Your task to perform on an android device: remove spam from my inbox in the gmail app Image 0: 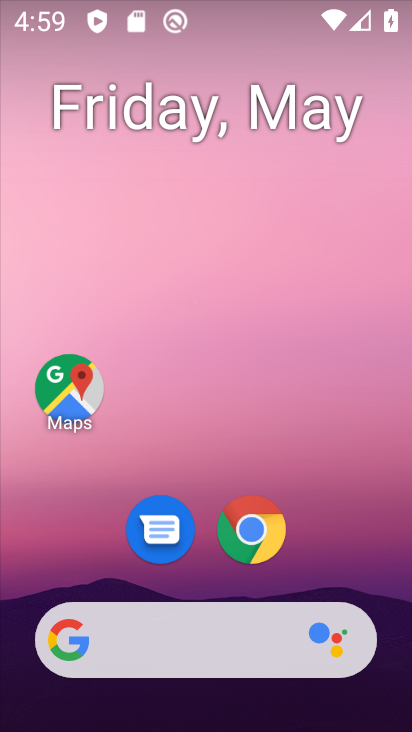
Step 0: drag from (265, 403) to (304, 43)
Your task to perform on an android device: remove spam from my inbox in the gmail app Image 1: 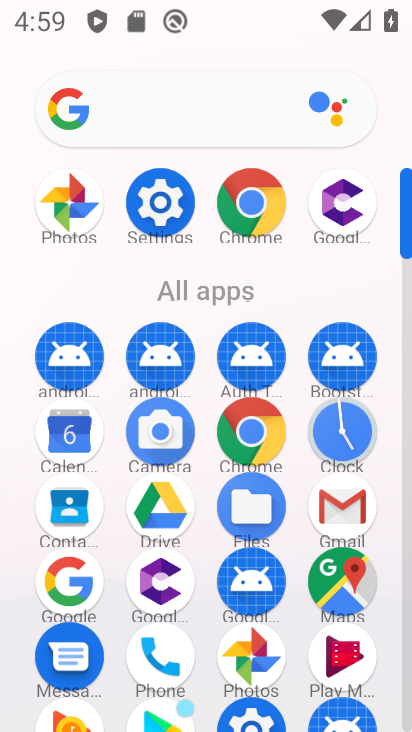
Step 1: click (333, 511)
Your task to perform on an android device: remove spam from my inbox in the gmail app Image 2: 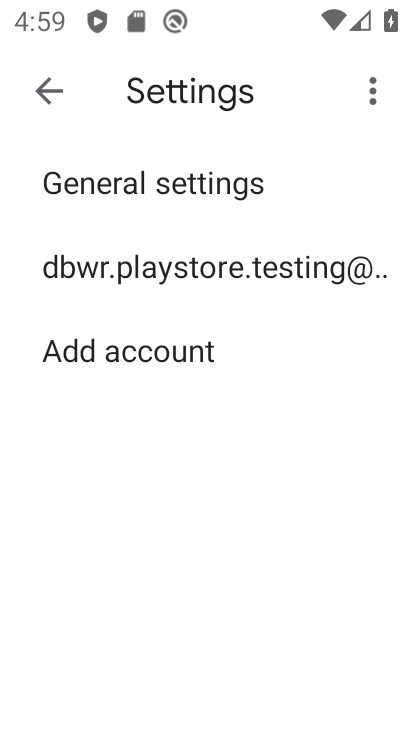
Step 2: click (64, 94)
Your task to perform on an android device: remove spam from my inbox in the gmail app Image 3: 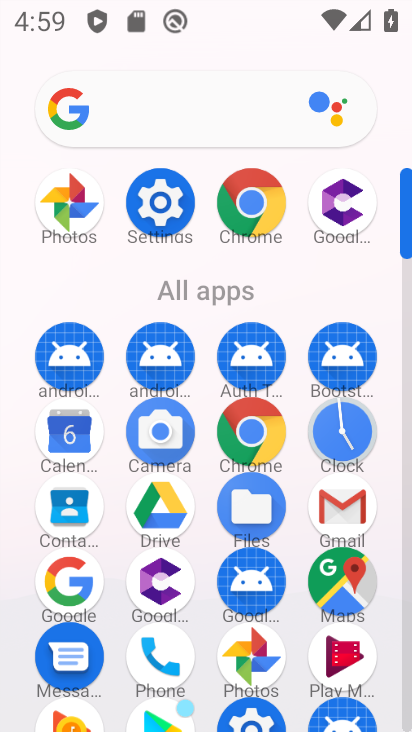
Step 3: click (64, 94)
Your task to perform on an android device: remove spam from my inbox in the gmail app Image 4: 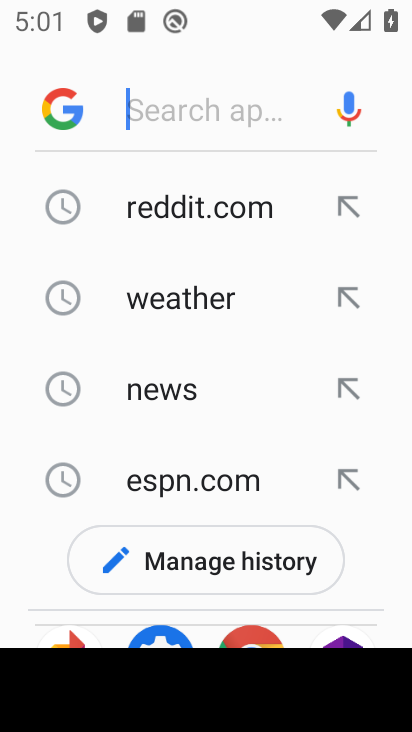
Step 4: press home button
Your task to perform on an android device: remove spam from my inbox in the gmail app Image 5: 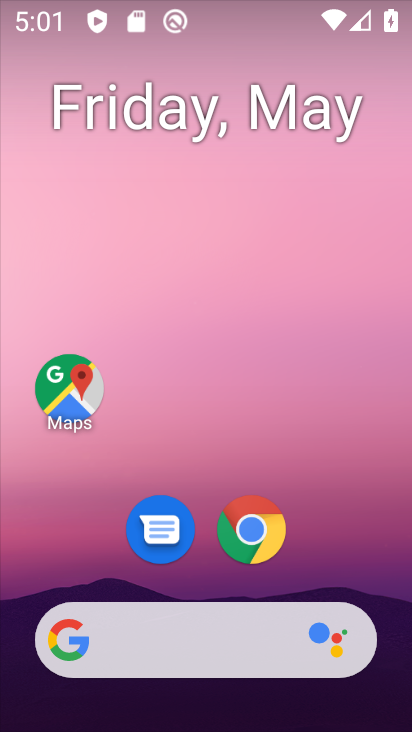
Step 5: drag from (185, 580) to (189, 170)
Your task to perform on an android device: remove spam from my inbox in the gmail app Image 6: 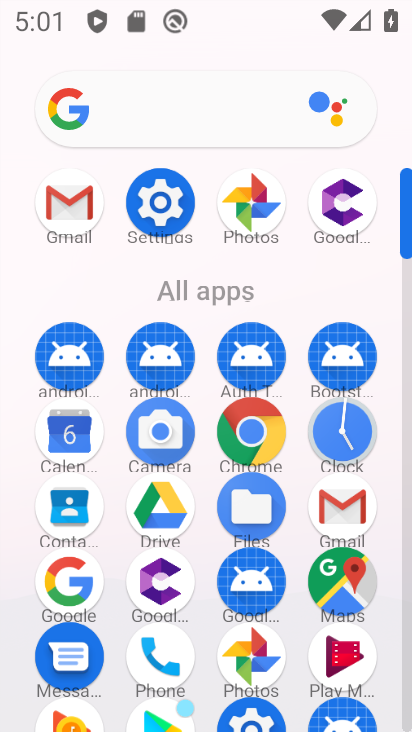
Step 6: click (122, 175)
Your task to perform on an android device: remove spam from my inbox in the gmail app Image 7: 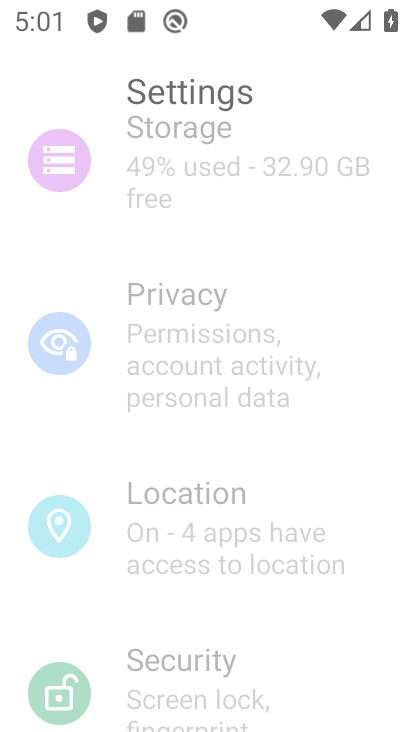
Step 7: click (86, 192)
Your task to perform on an android device: remove spam from my inbox in the gmail app Image 8: 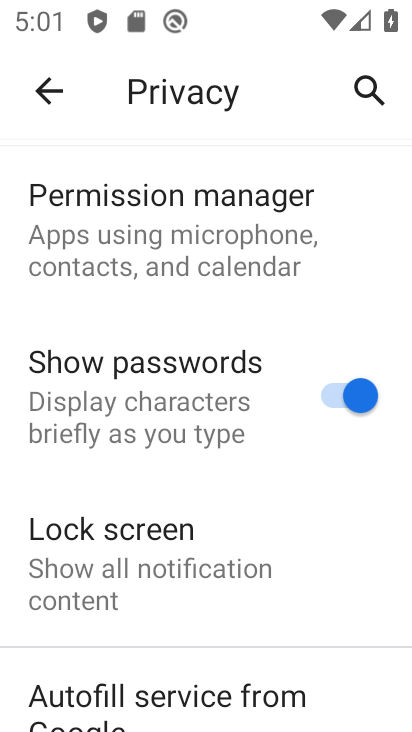
Step 8: press home button
Your task to perform on an android device: remove spam from my inbox in the gmail app Image 9: 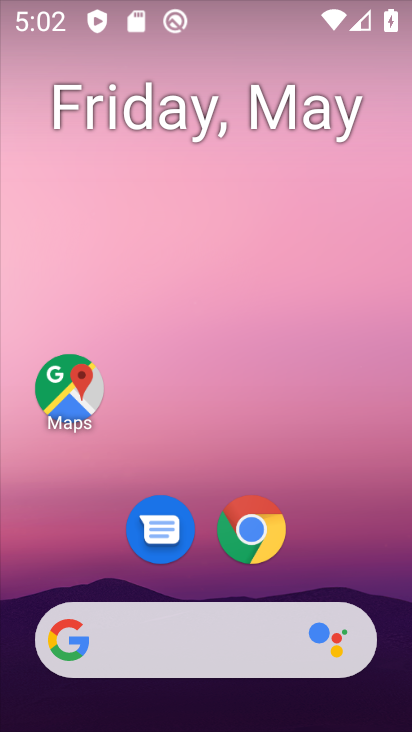
Step 9: drag from (176, 585) to (199, 55)
Your task to perform on an android device: remove spam from my inbox in the gmail app Image 10: 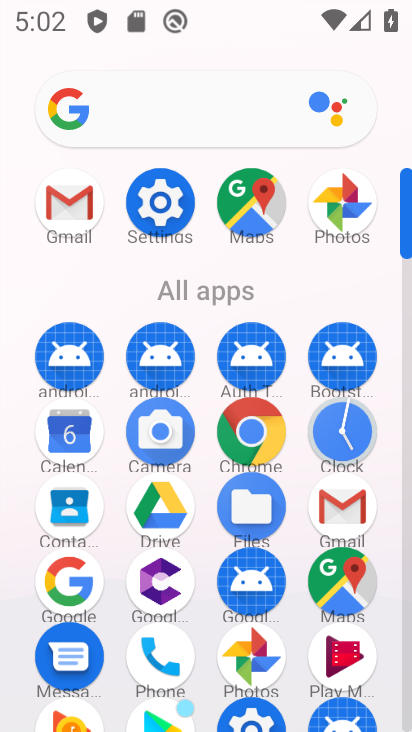
Step 10: click (199, 55)
Your task to perform on an android device: remove spam from my inbox in the gmail app Image 11: 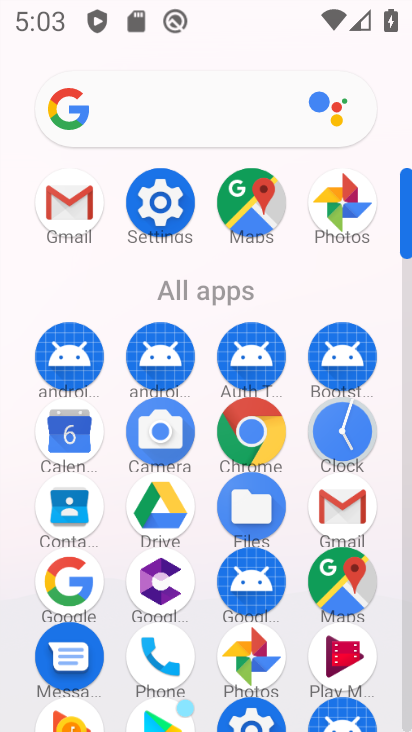
Step 11: click (61, 216)
Your task to perform on an android device: remove spam from my inbox in the gmail app Image 12: 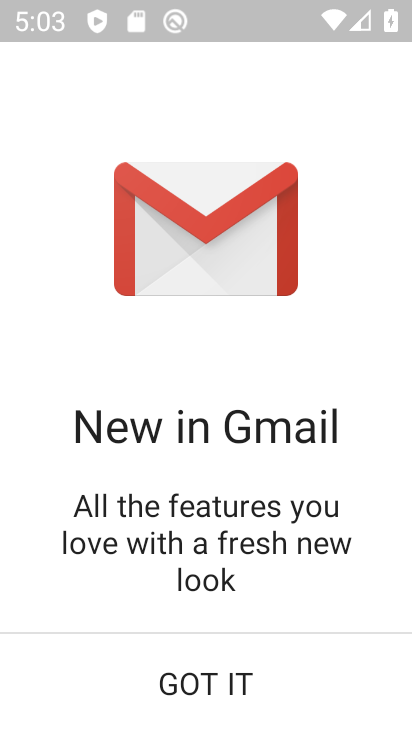
Step 12: click (264, 661)
Your task to perform on an android device: remove spam from my inbox in the gmail app Image 13: 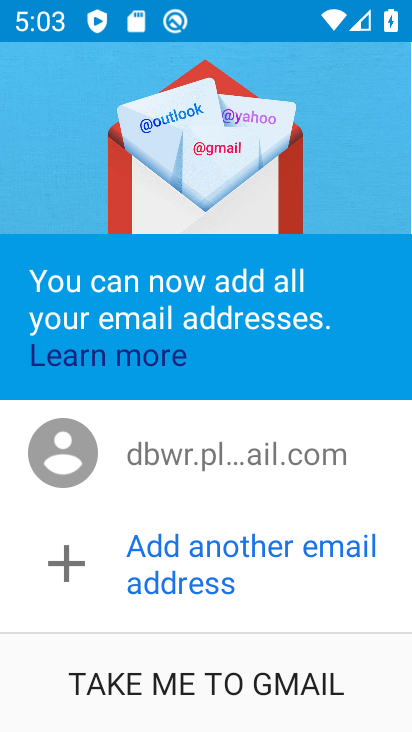
Step 13: click (264, 661)
Your task to perform on an android device: remove spam from my inbox in the gmail app Image 14: 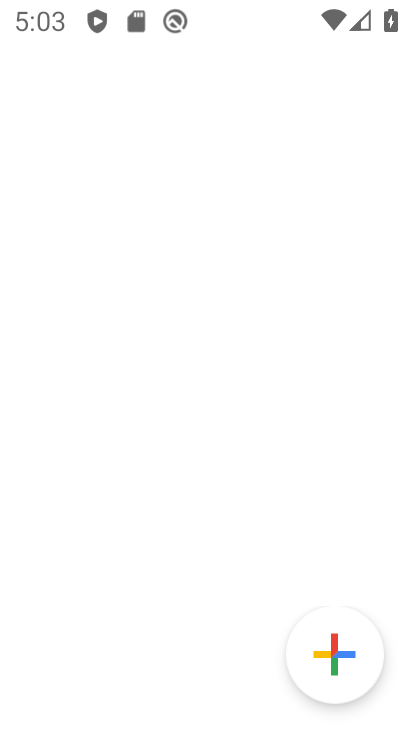
Step 14: click (264, 661)
Your task to perform on an android device: remove spam from my inbox in the gmail app Image 15: 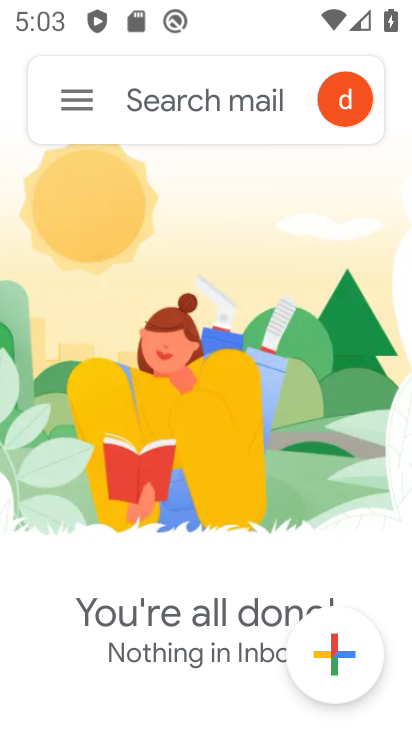
Step 15: click (386, 668)
Your task to perform on an android device: remove spam from my inbox in the gmail app Image 16: 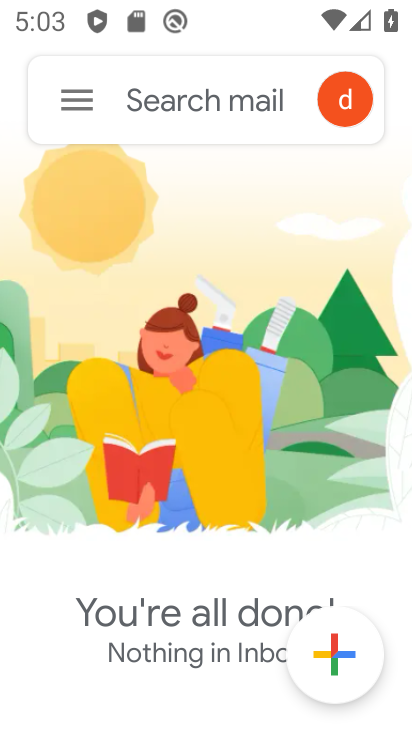
Step 16: click (386, 668)
Your task to perform on an android device: remove spam from my inbox in the gmail app Image 17: 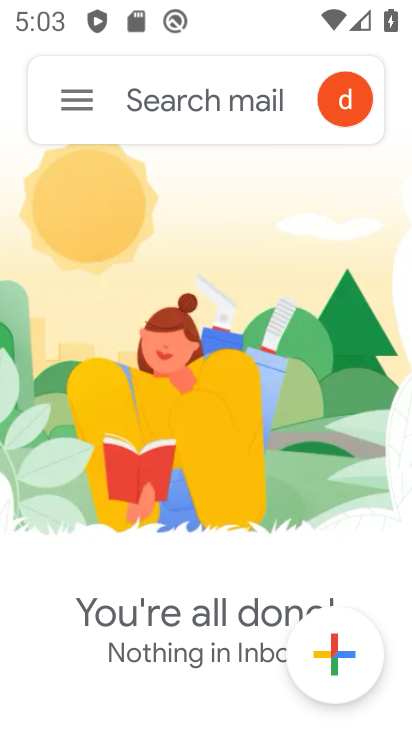
Step 17: click (386, 668)
Your task to perform on an android device: remove spam from my inbox in the gmail app Image 18: 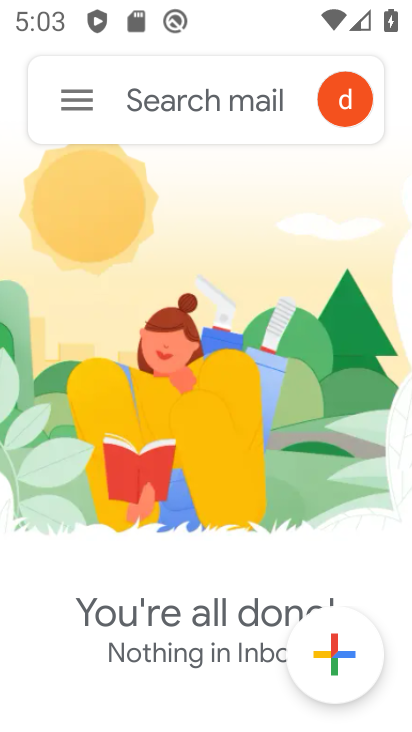
Step 18: click (386, 668)
Your task to perform on an android device: remove spam from my inbox in the gmail app Image 19: 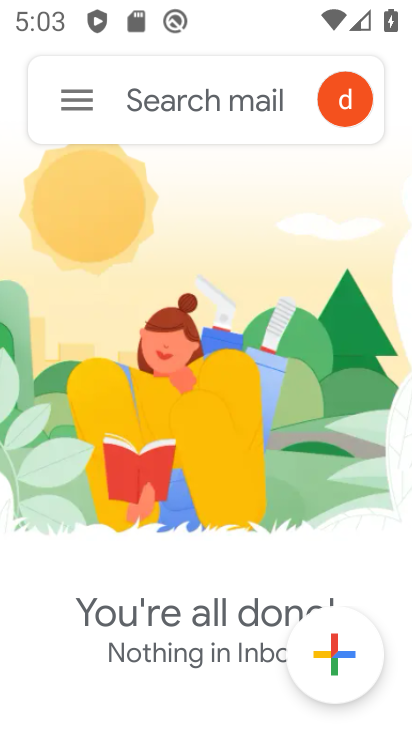
Step 19: click (77, 99)
Your task to perform on an android device: remove spam from my inbox in the gmail app Image 20: 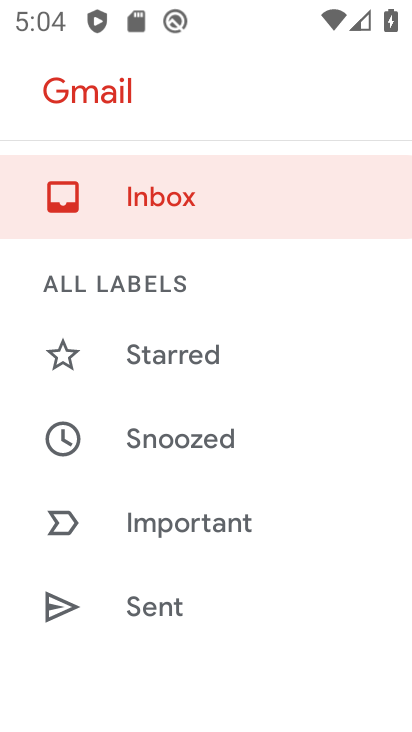
Step 20: drag from (146, 584) to (200, 170)
Your task to perform on an android device: remove spam from my inbox in the gmail app Image 21: 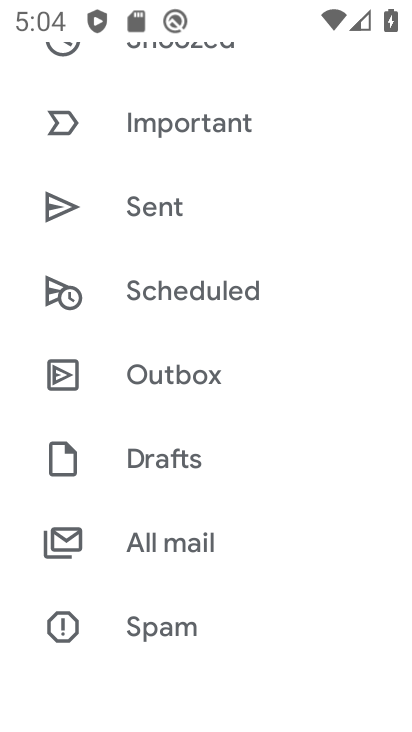
Step 21: drag from (164, 626) to (206, 248)
Your task to perform on an android device: remove spam from my inbox in the gmail app Image 22: 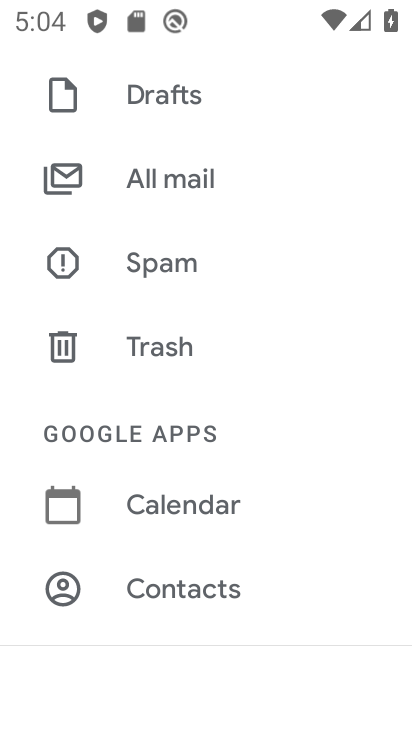
Step 22: click (199, 287)
Your task to perform on an android device: remove spam from my inbox in the gmail app Image 23: 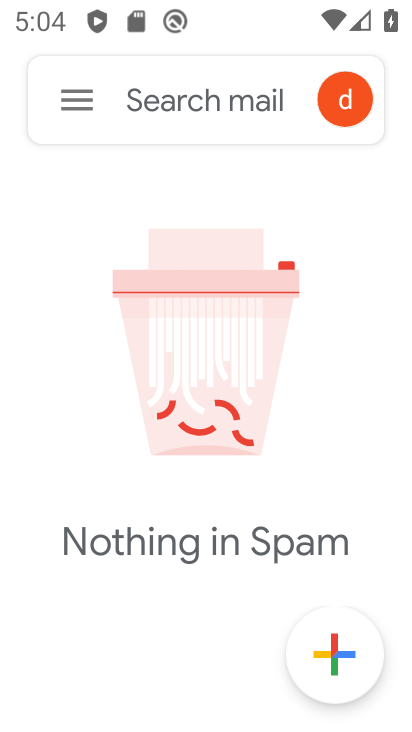
Step 23: task complete